Your task to perform on an android device: search for starred emails in the gmail app Image 0: 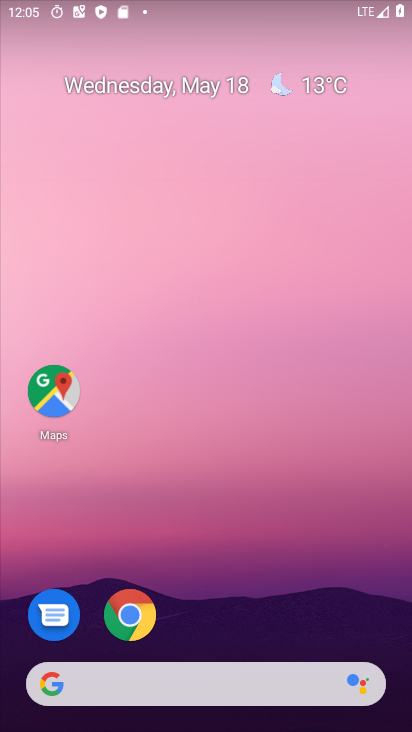
Step 0: press home button
Your task to perform on an android device: search for starred emails in the gmail app Image 1: 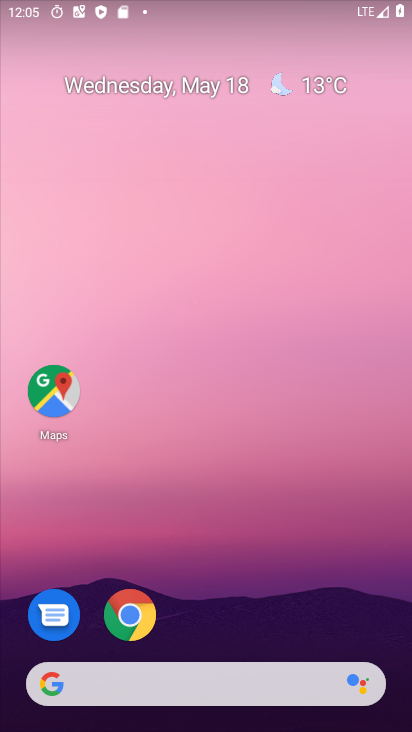
Step 1: drag from (127, 695) to (264, 195)
Your task to perform on an android device: search for starred emails in the gmail app Image 2: 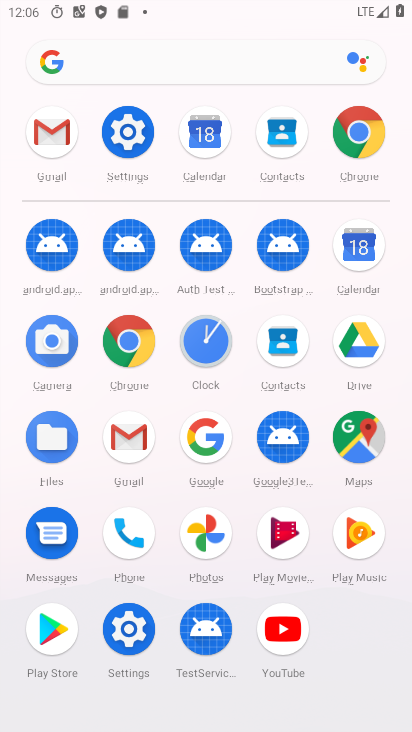
Step 2: click (42, 139)
Your task to perform on an android device: search for starred emails in the gmail app Image 3: 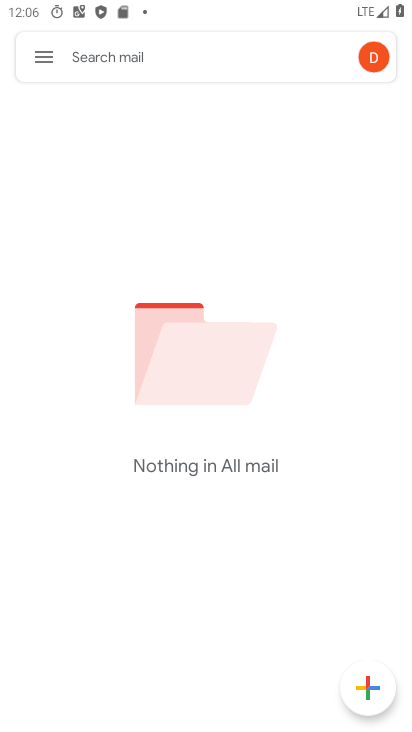
Step 3: click (45, 57)
Your task to perform on an android device: search for starred emails in the gmail app Image 4: 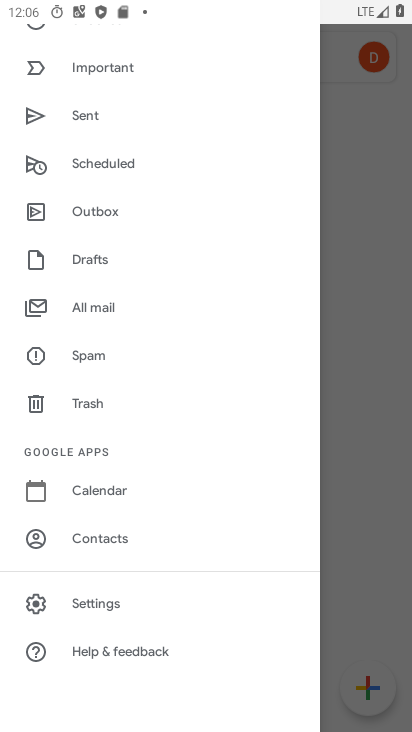
Step 4: drag from (179, 118) to (137, 444)
Your task to perform on an android device: search for starred emails in the gmail app Image 5: 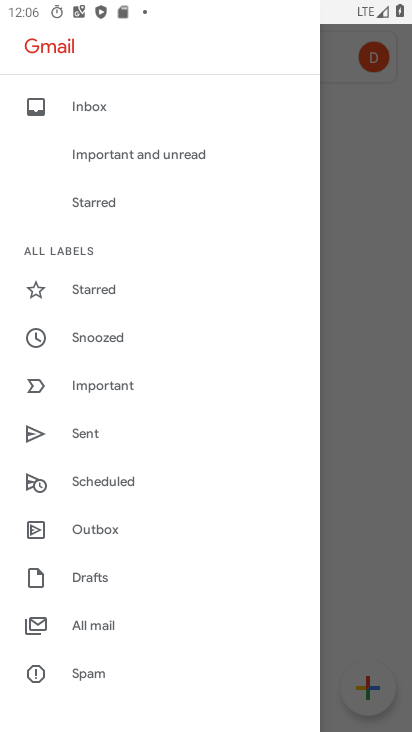
Step 5: click (112, 295)
Your task to perform on an android device: search for starred emails in the gmail app Image 6: 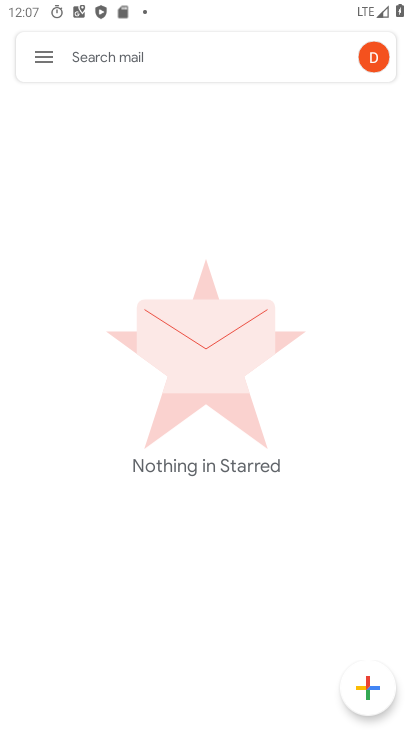
Step 6: task complete